Your task to perform on an android device: Open Youtube and go to the subscriptions tab Image 0: 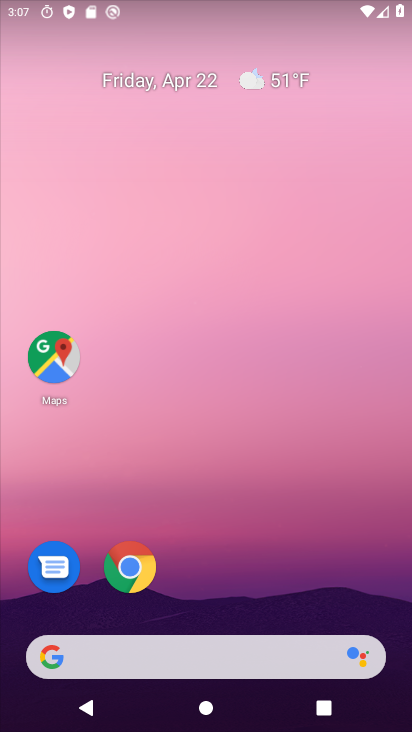
Step 0: drag from (223, 540) to (222, 73)
Your task to perform on an android device: Open Youtube and go to the subscriptions tab Image 1: 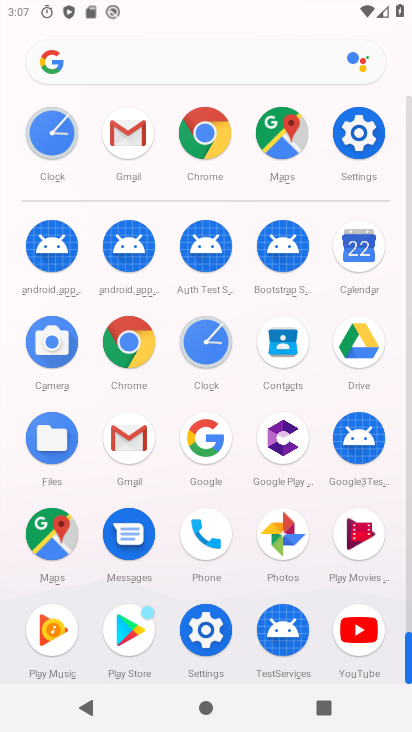
Step 1: click (364, 636)
Your task to perform on an android device: Open Youtube and go to the subscriptions tab Image 2: 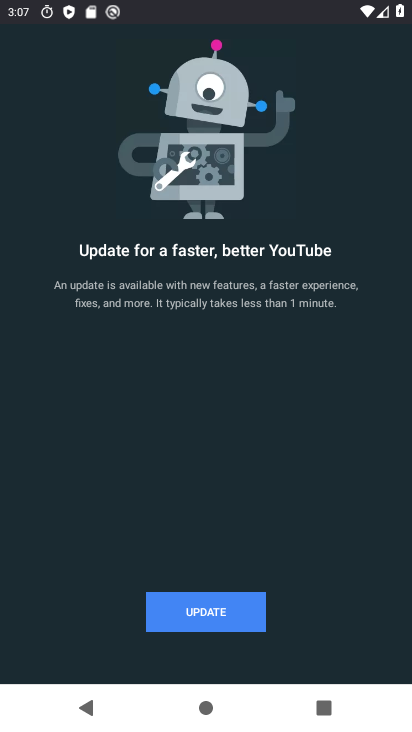
Step 2: click (242, 613)
Your task to perform on an android device: Open Youtube and go to the subscriptions tab Image 3: 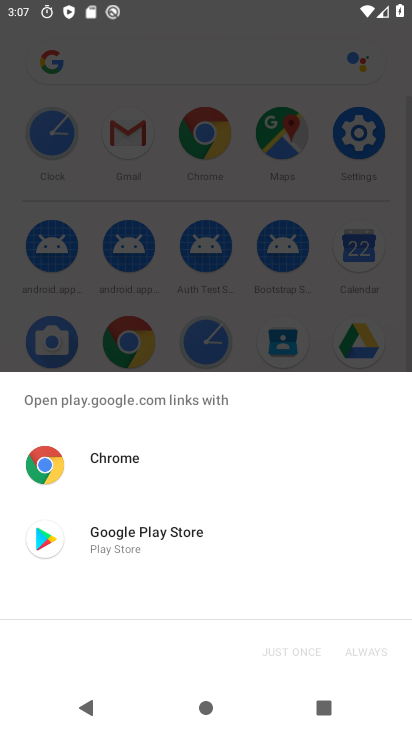
Step 3: click (138, 543)
Your task to perform on an android device: Open Youtube and go to the subscriptions tab Image 4: 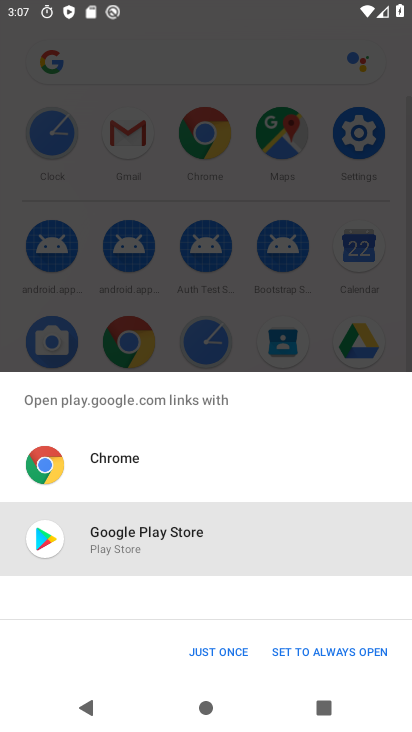
Step 4: click (213, 650)
Your task to perform on an android device: Open Youtube and go to the subscriptions tab Image 5: 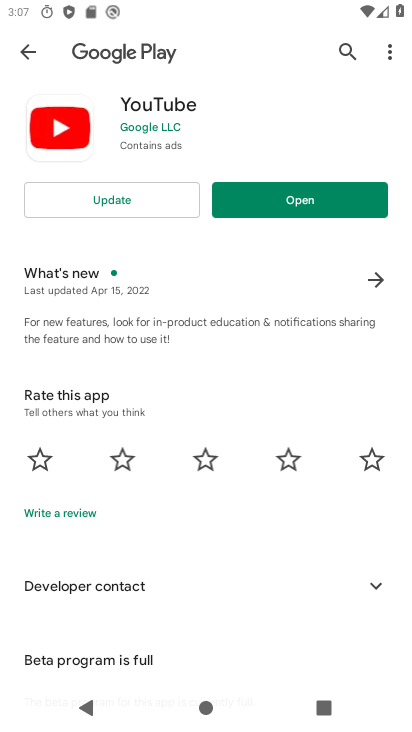
Step 5: click (141, 200)
Your task to perform on an android device: Open Youtube and go to the subscriptions tab Image 6: 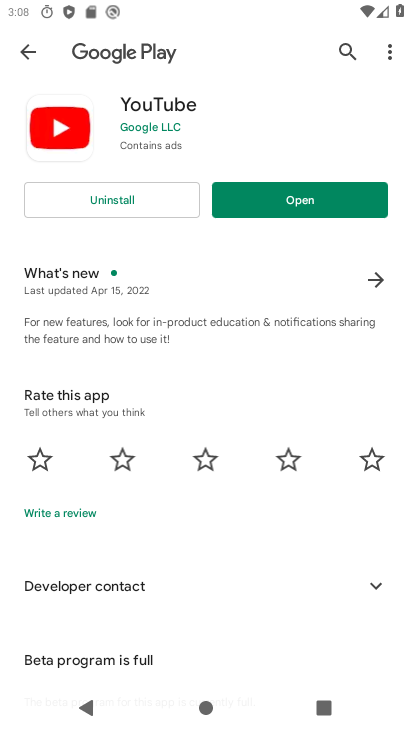
Step 6: click (315, 199)
Your task to perform on an android device: Open Youtube and go to the subscriptions tab Image 7: 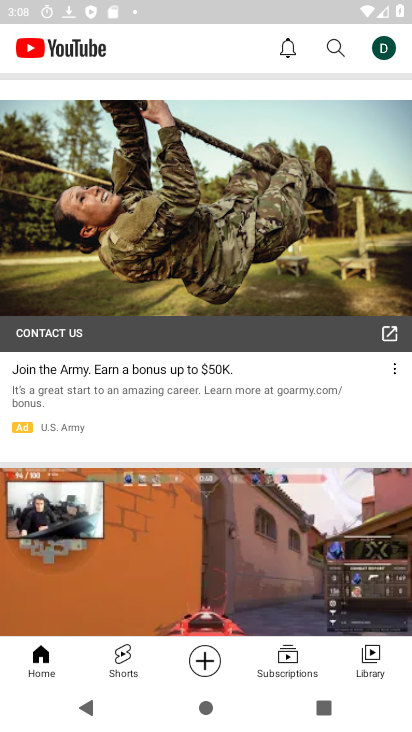
Step 7: click (291, 652)
Your task to perform on an android device: Open Youtube and go to the subscriptions tab Image 8: 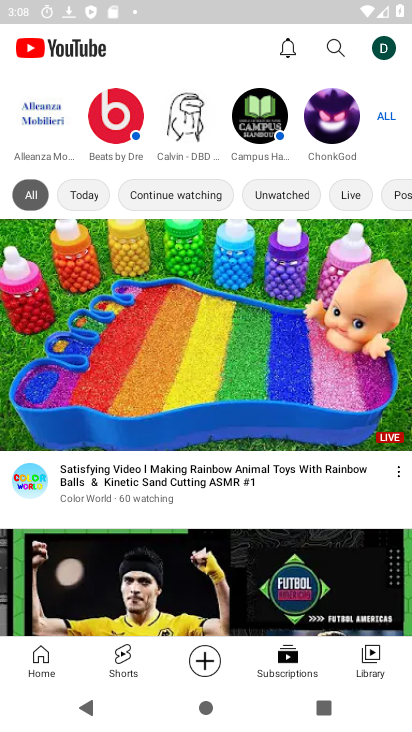
Step 8: task complete